Your task to perform on an android device: Open my contact list Image 0: 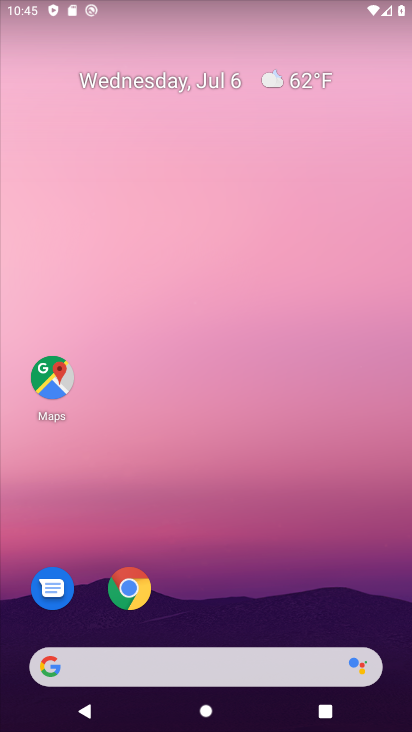
Step 0: drag from (387, 616) to (346, 76)
Your task to perform on an android device: Open my contact list Image 1: 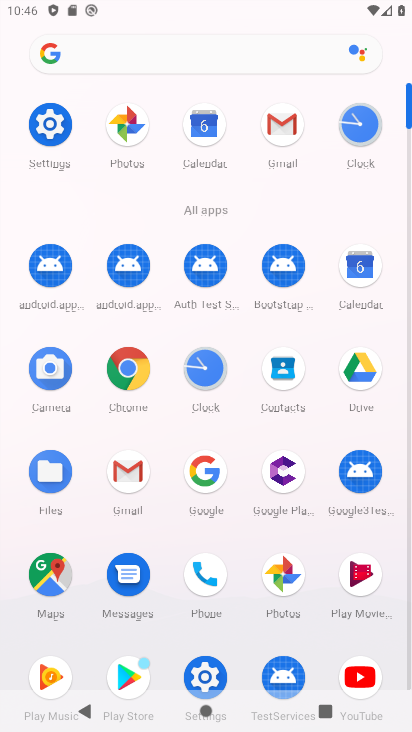
Step 1: click (280, 367)
Your task to perform on an android device: Open my contact list Image 2: 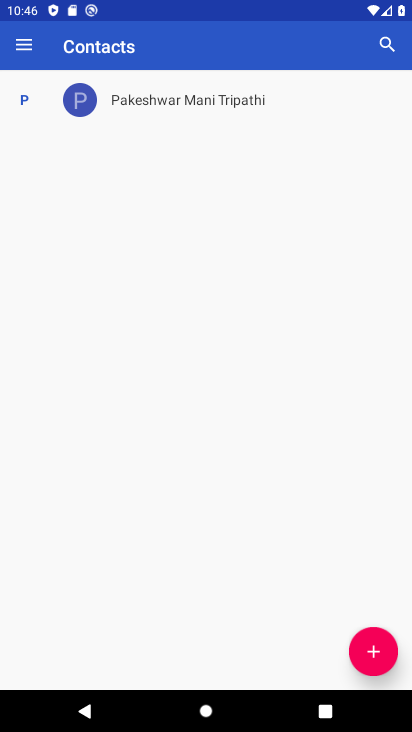
Step 2: task complete